Your task to perform on an android device: open app "Messages" (install if not already installed) Image 0: 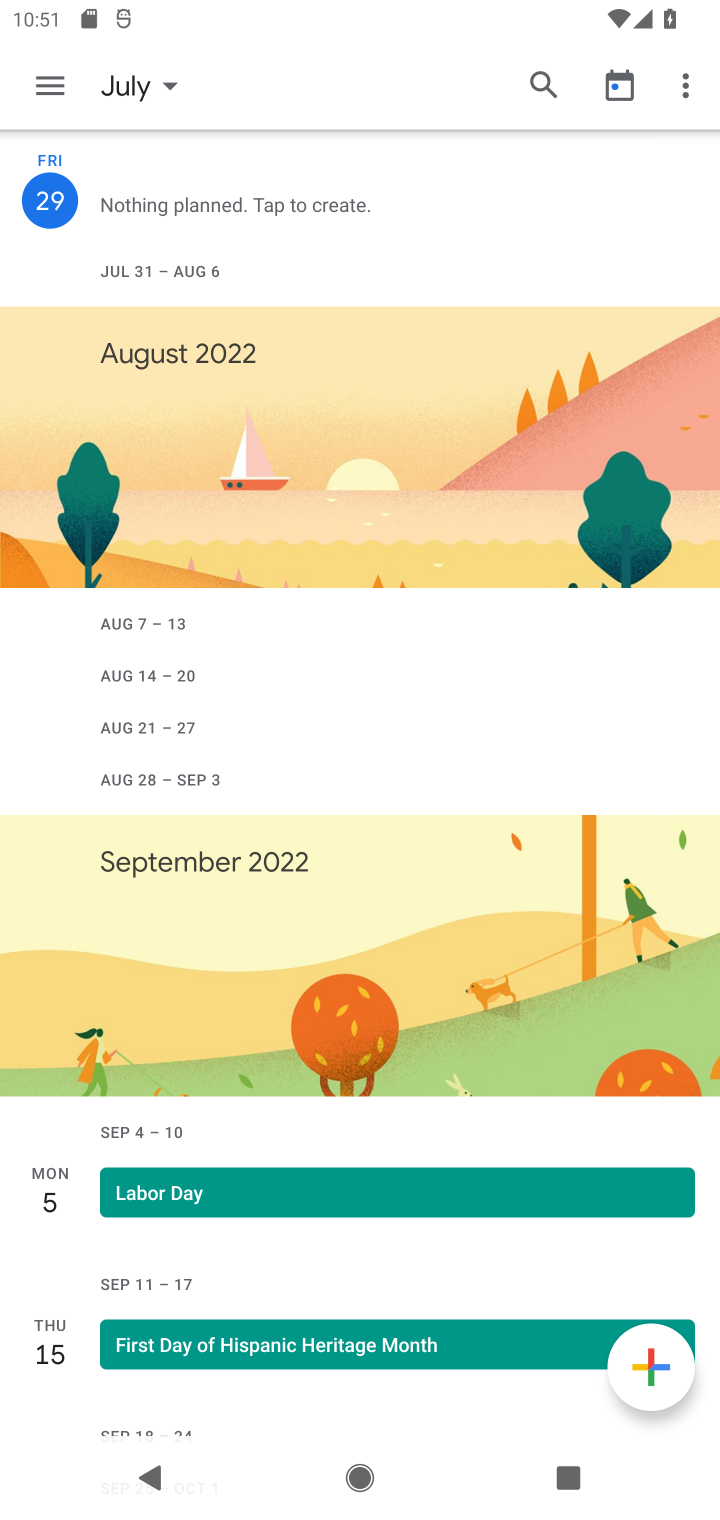
Step 0: press home button
Your task to perform on an android device: open app "Messages" (install if not already installed) Image 1: 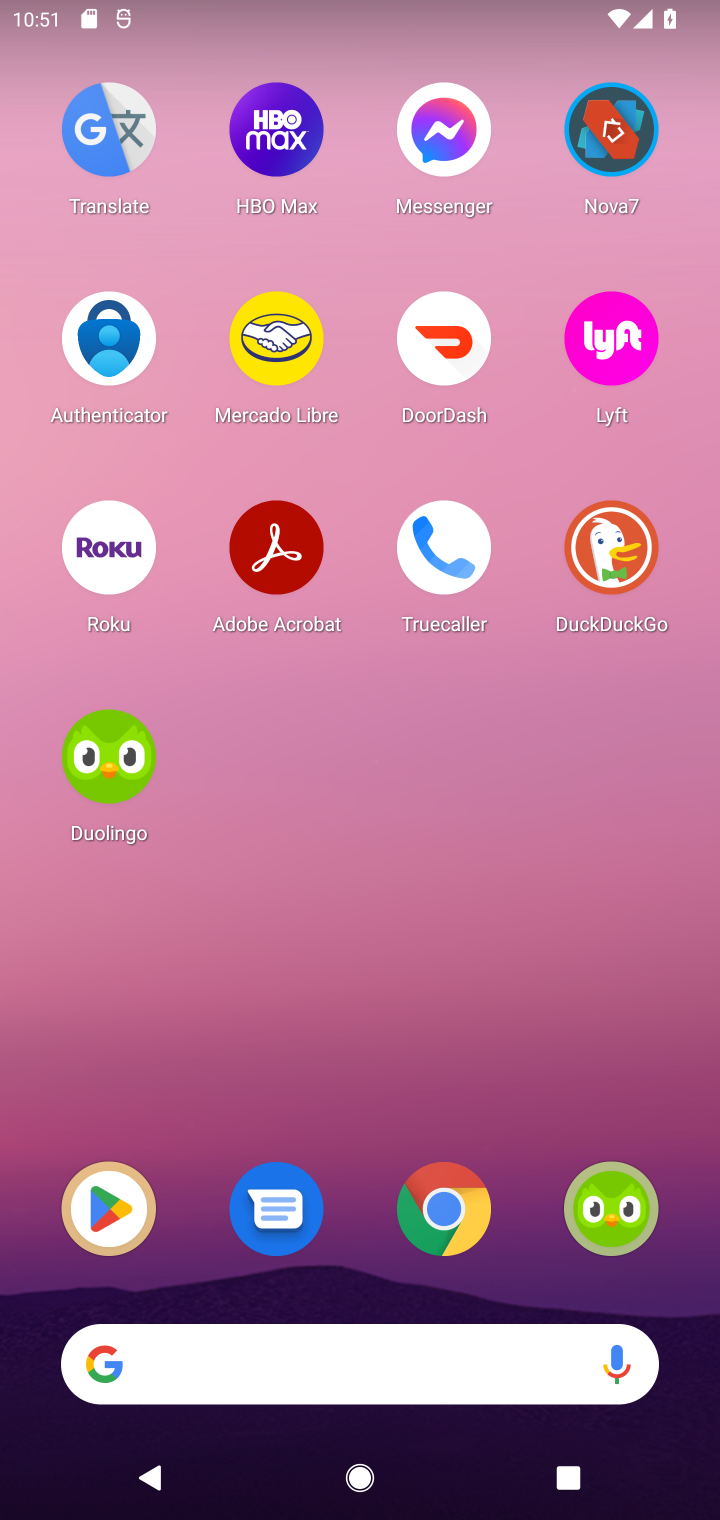
Step 1: drag from (523, 1032) to (523, 80)
Your task to perform on an android device: open app "Messages" (install if not already installed) Image 2: 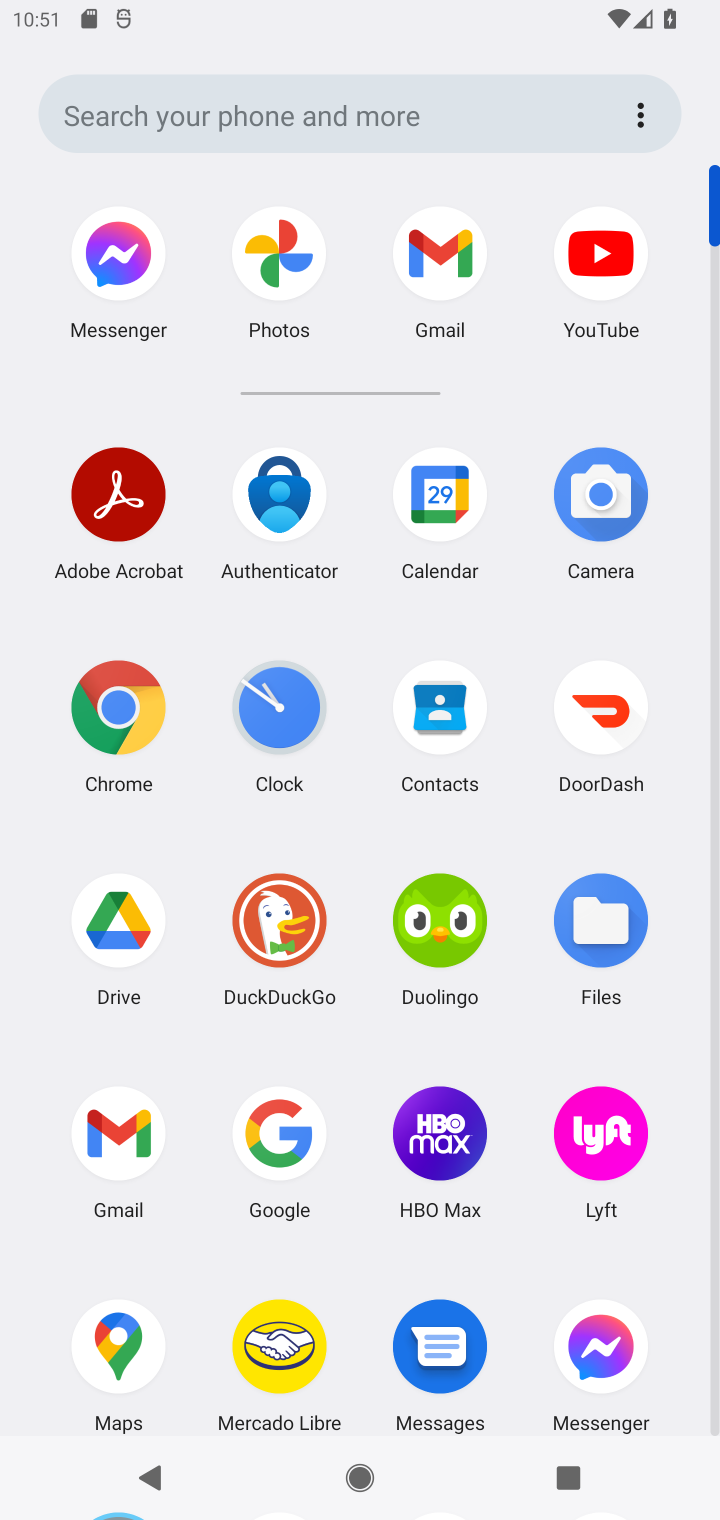
Step 2: drag from (532, 1249) to (601, 514)
Your task to perform on an android device: open app "Messages" (install if not already installed) Image 3: 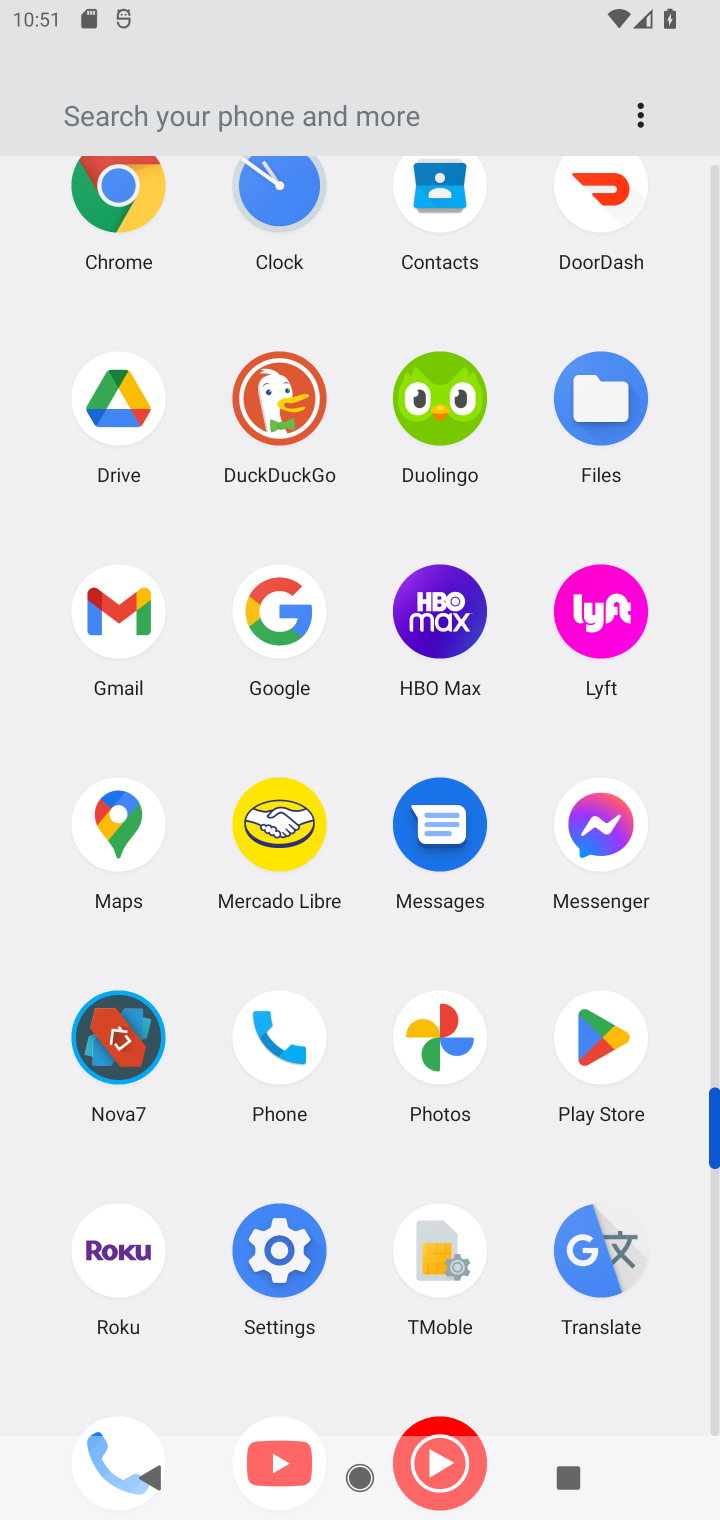
Step 3: click (594, 1037)
Your task to perform on an android device: open app "Messages" (install if not already installed) Image 4: 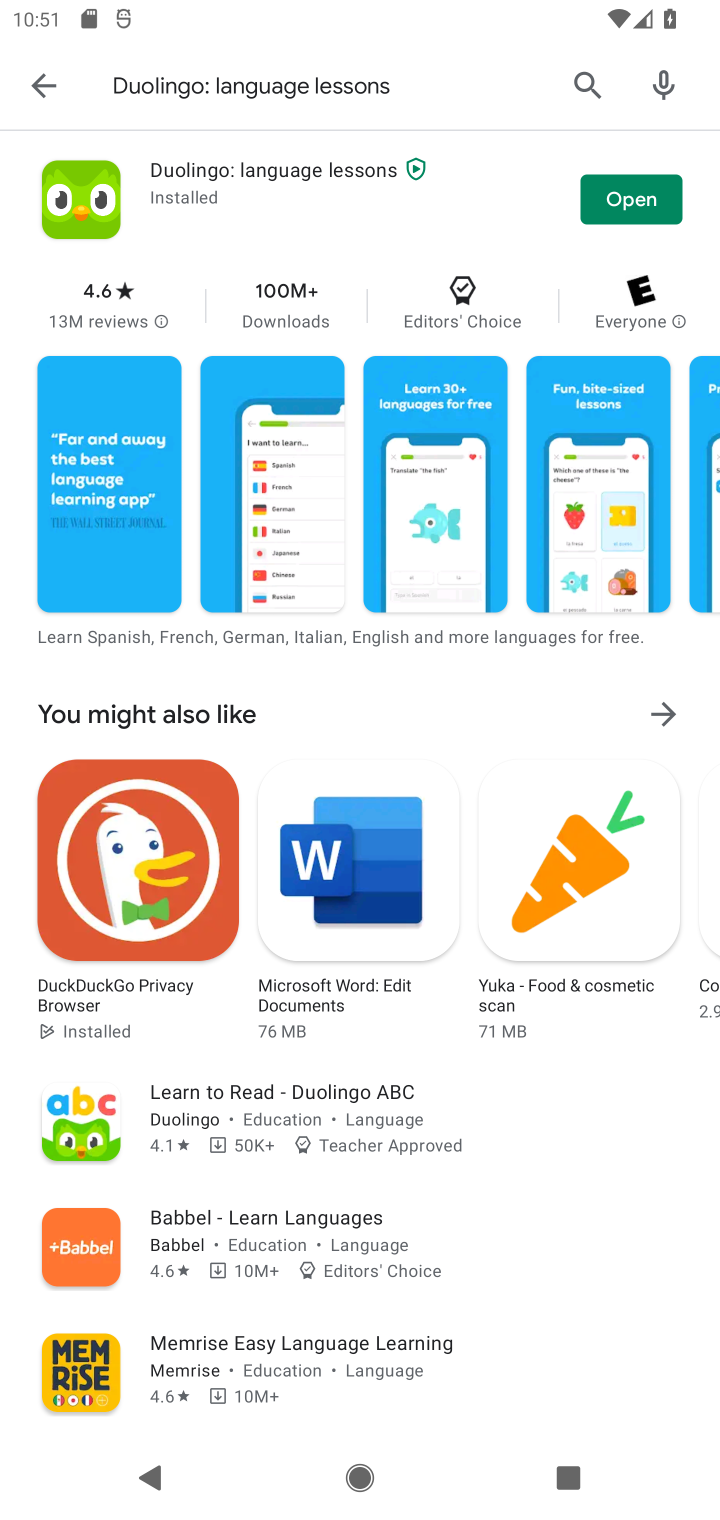
Step 4: click (459, 98)
Your task to perform on an android device: open app "Messages" (install if not already installed) Image 5: 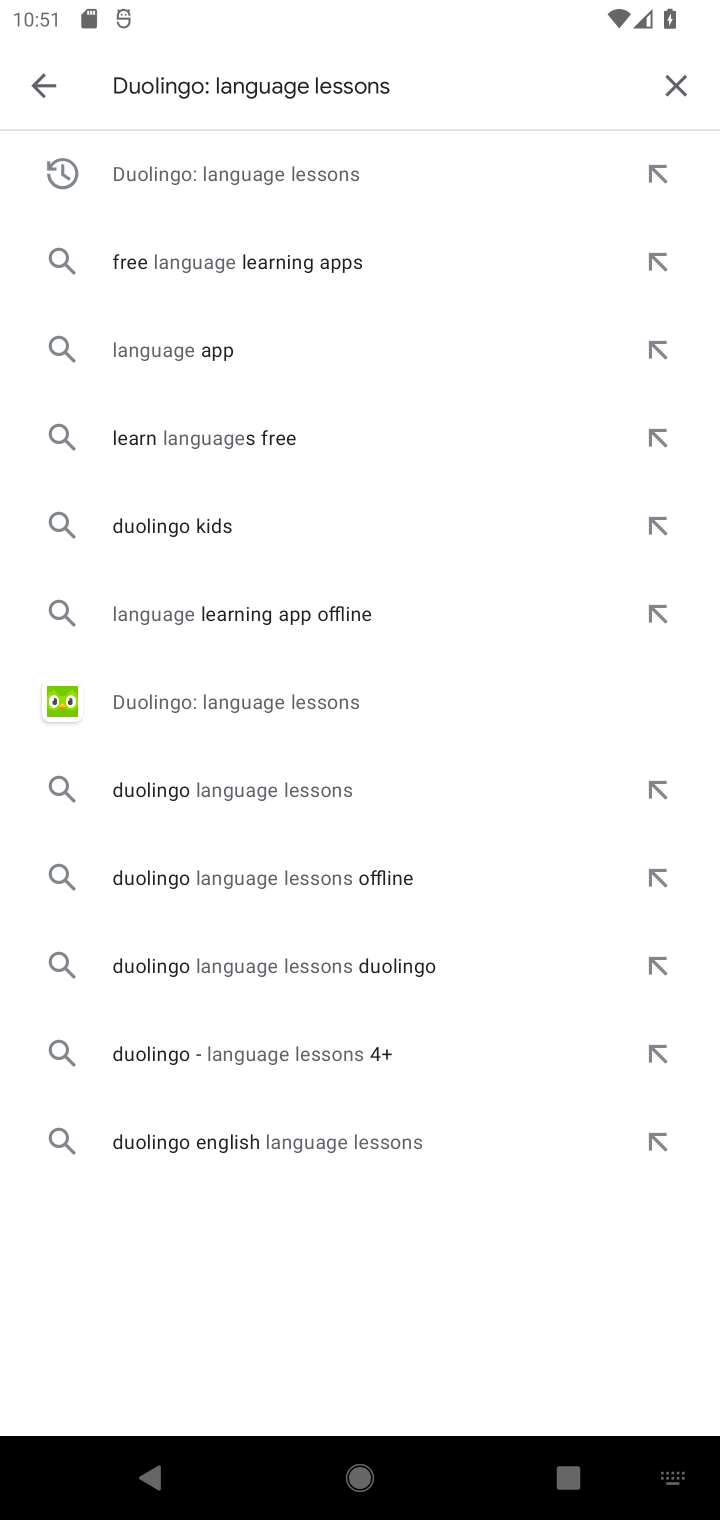
Step 5: click (683, 79)
Your task to perform on an android device: open app "Messages" (install if not already installed) Image 6: 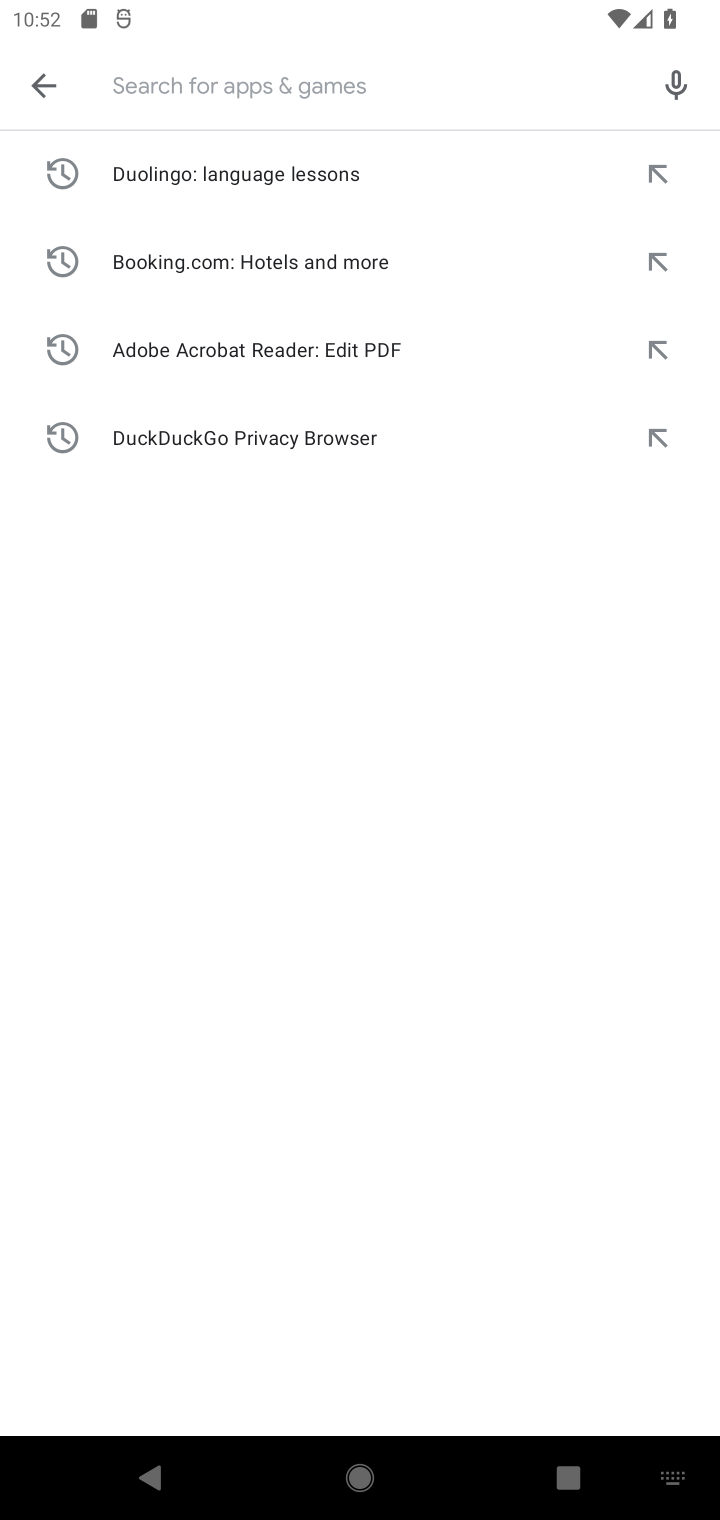
Step 6: type "Messages"
Your task to perform on an android device: open app "Messages" (install if not already installed) Image 7: 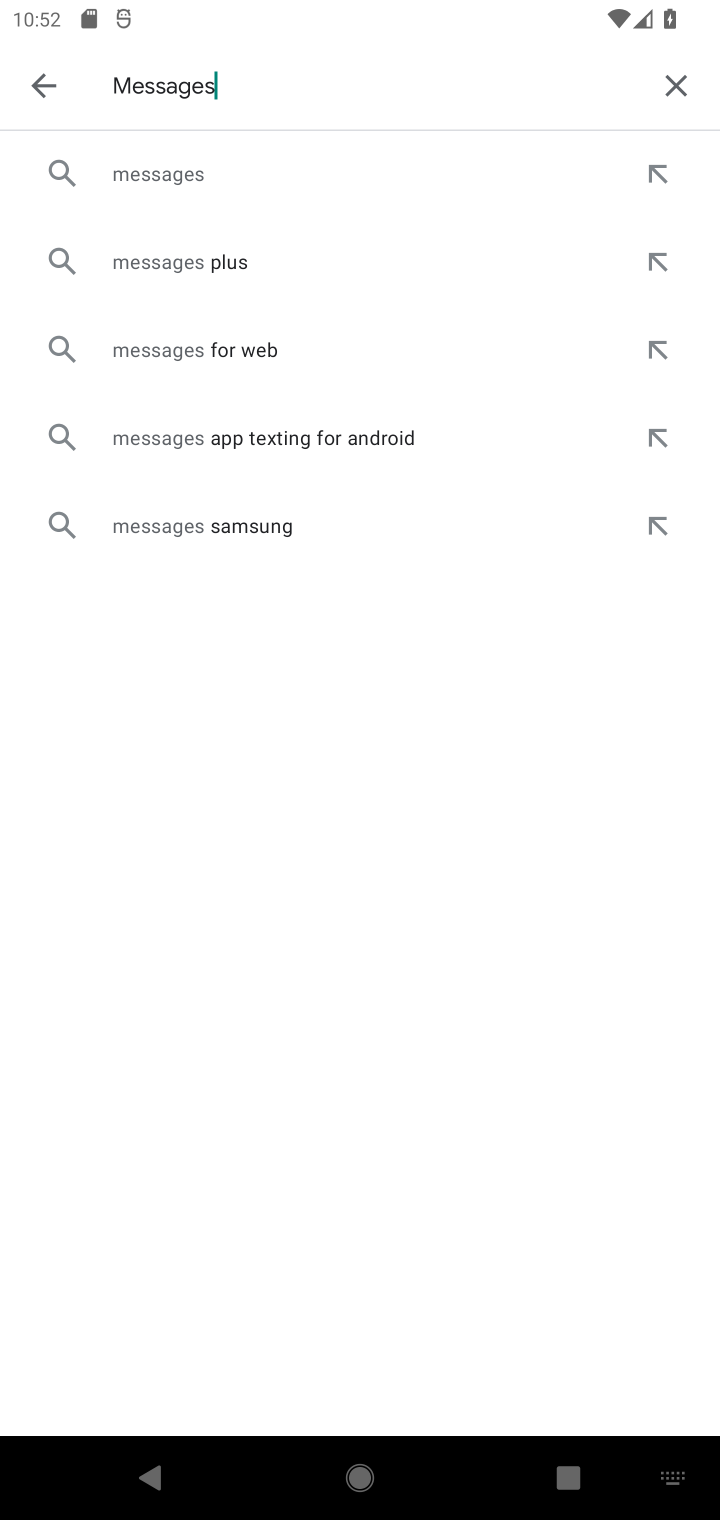
Step 7: press enter
Your task to perform on an android device: open app "Messages" (install if not already installed) Image 8: 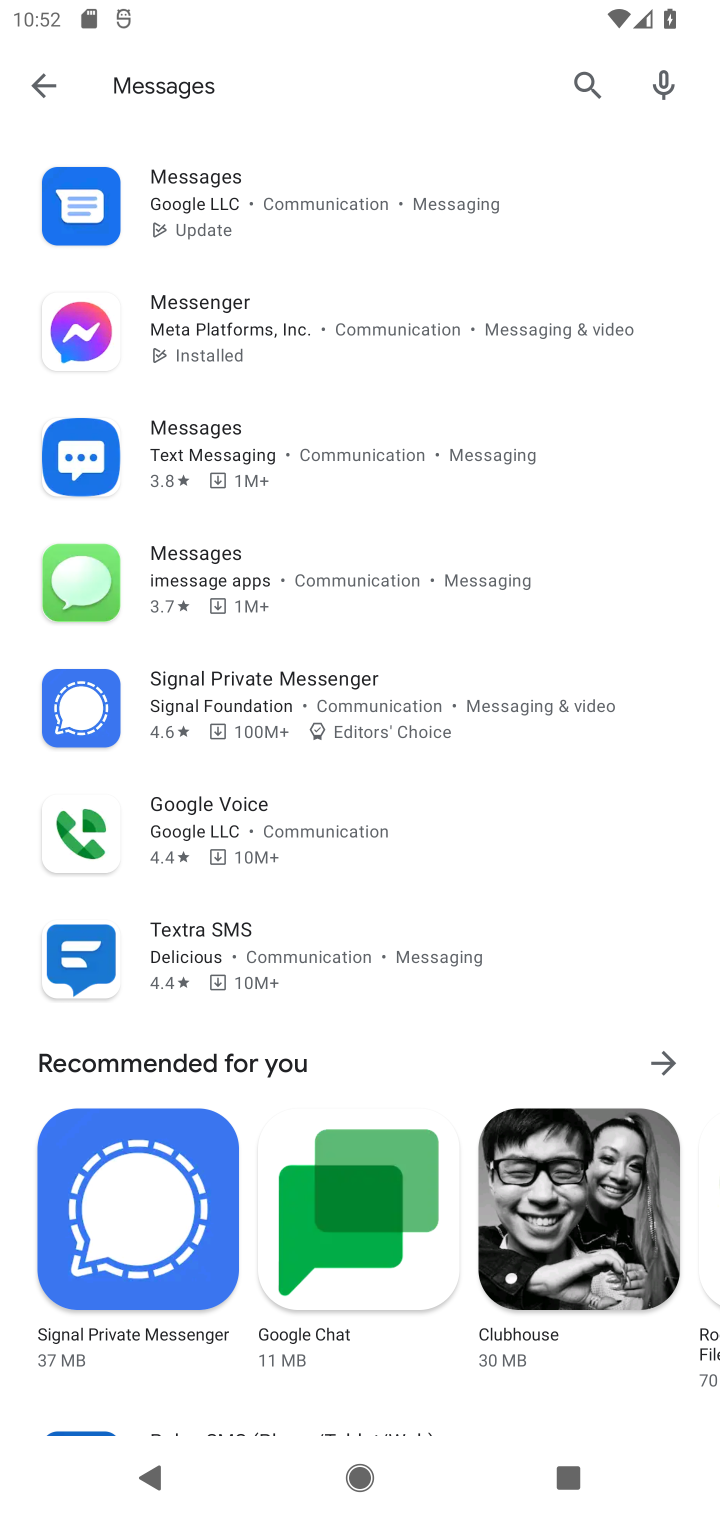
Step 8: click (425, 217)
Your task to perform on an android device: open app "Messages" (install if not already installed) Image 9: 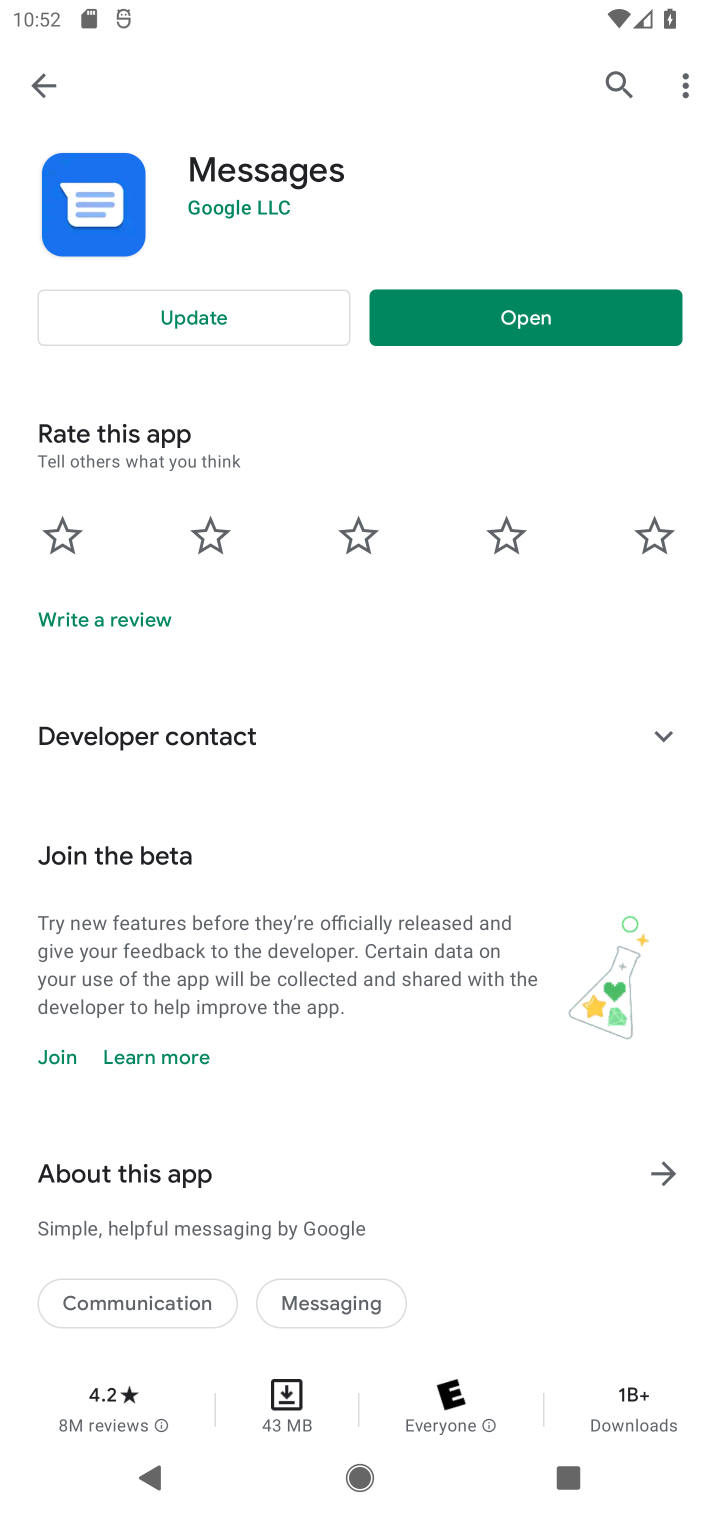
Step 9: click (541, 318)
Your task to perform on an android device: open app "Messages" (install if not already installed) Image 10: 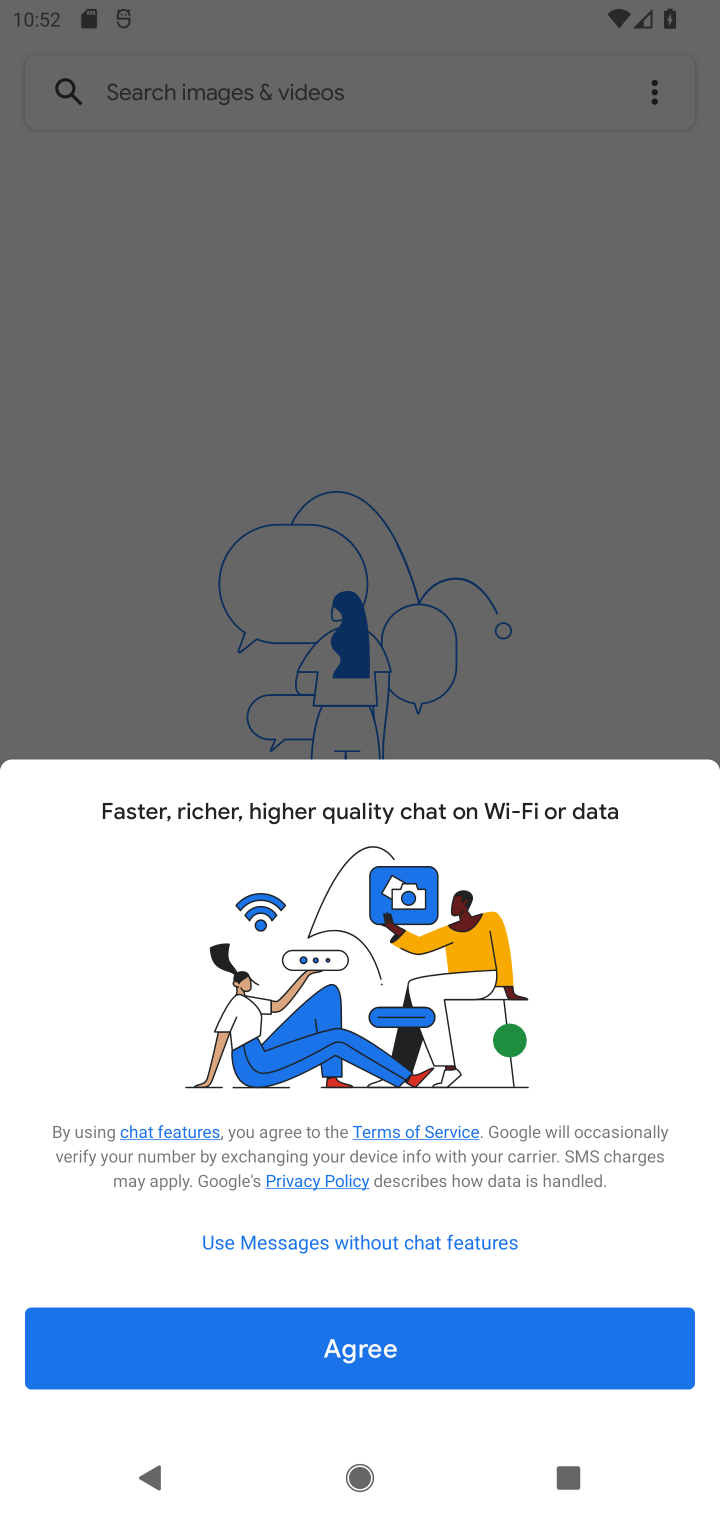
Step 10: click (559, 1348)
Your task to perform on an android device: open app "Messages" (install if not already installed) Image 11: 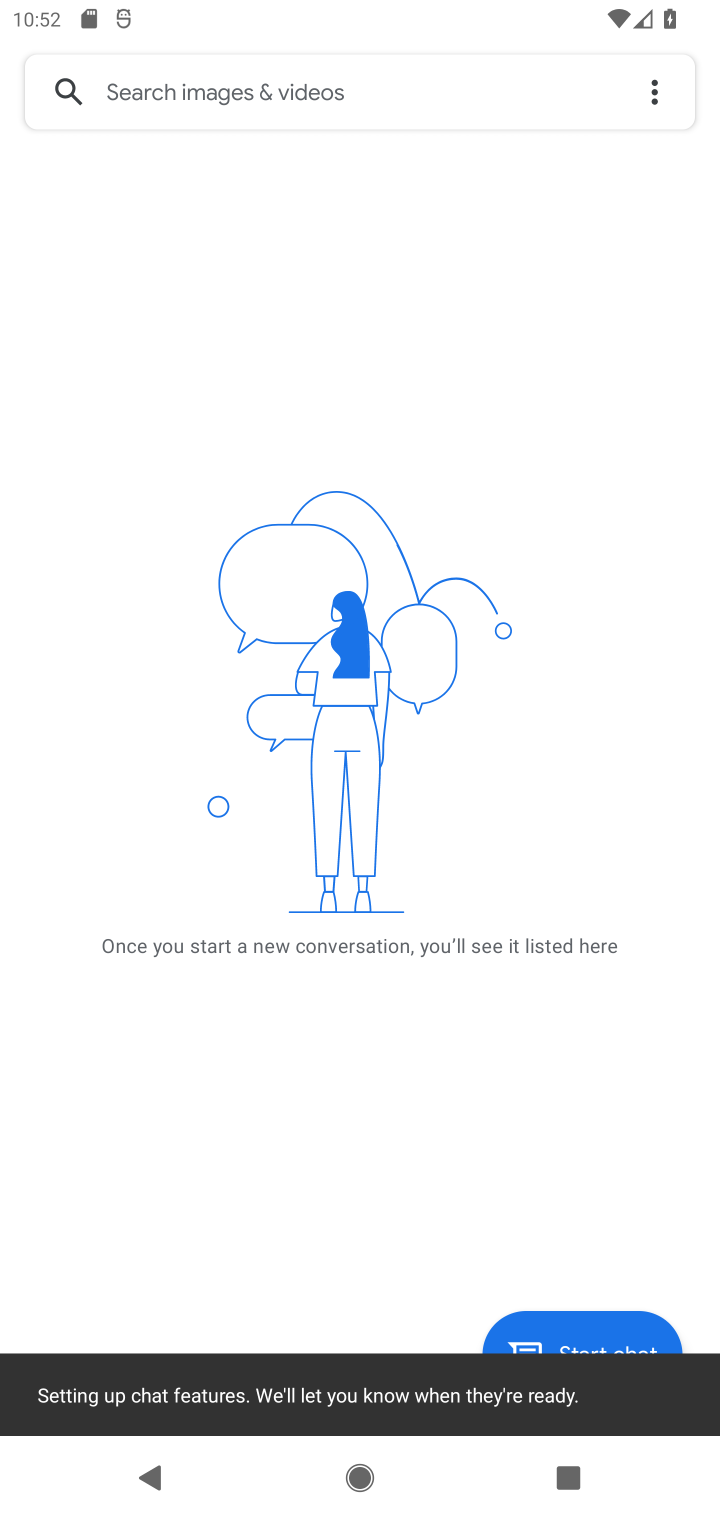
Step 11: task complete